Your task to perform on an android device: turn off location history Image 0: 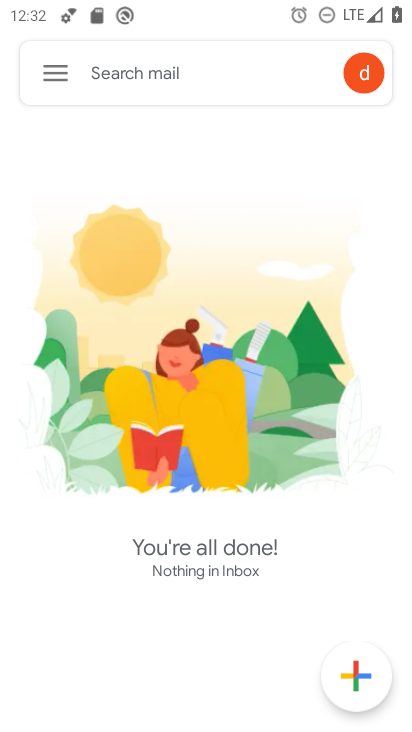
Step 0: press home button
Your task to perform on an android device: turn off location history Image 1: 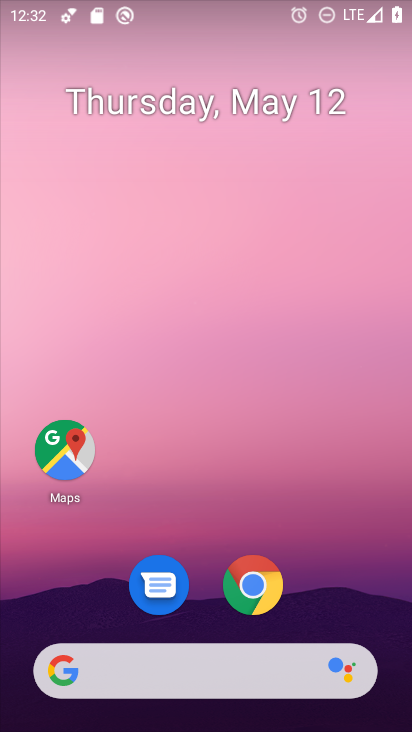
Step 1: drag from (236, 465) to (197, 1)
Your task to perform on an android device: turn off location history Image 2: 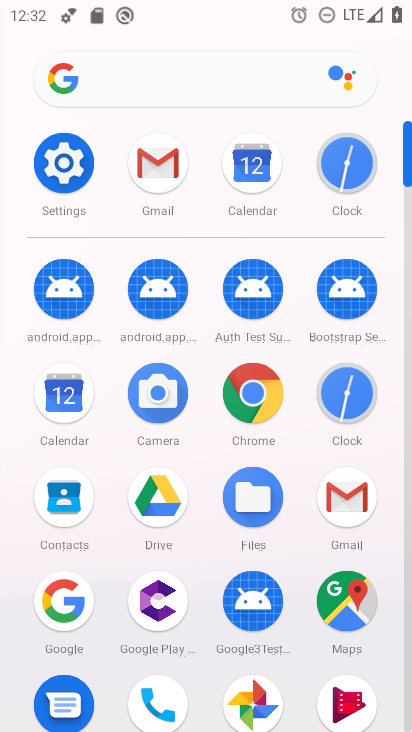
Step 2: click (65, 161)
Your task to perform on an android device: turn off location history Image 3: 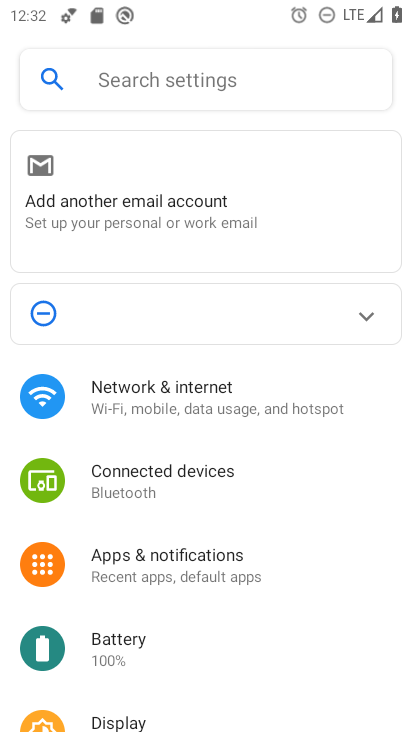
Step 3: drag from (226, 640) to (282, 289)
Your task to perform on an android device: turn off location history Image 4: 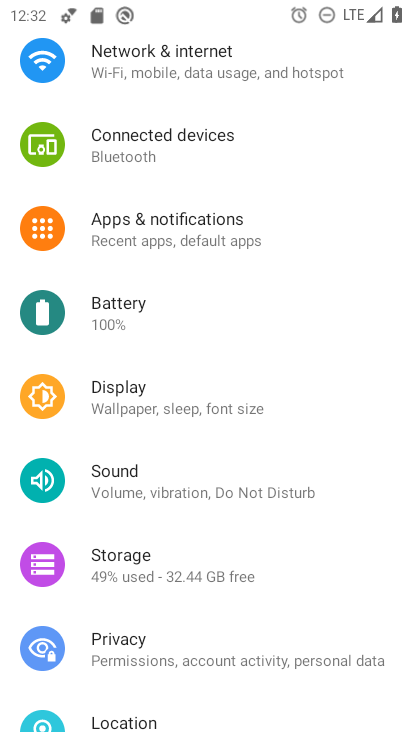
Step 4: drag from (239, 581) to (263, 281)
Your task to perform on an android device: turn off location history Image 5: 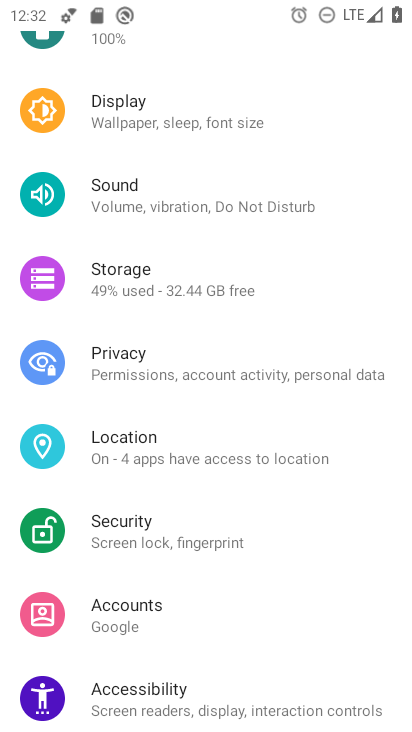
Step 5: click (234, 451)
Your task to perform on an android device: turn off location history Image 6: 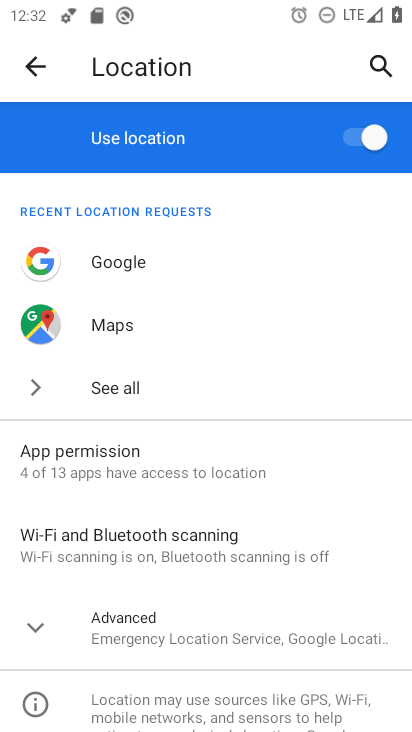
Step 6: click (32, 616)
Your task to perform on an android device: turn off location history Image 7: 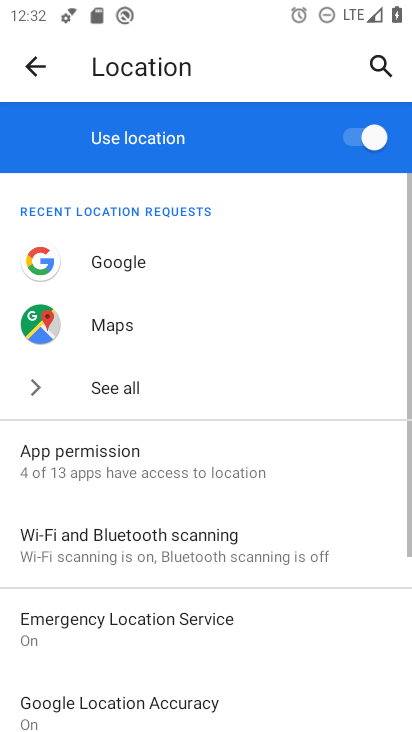
Step 7: drag from (225, 605) to (275, 227)
Your task to perform on an android device: turn off location history Image 8: 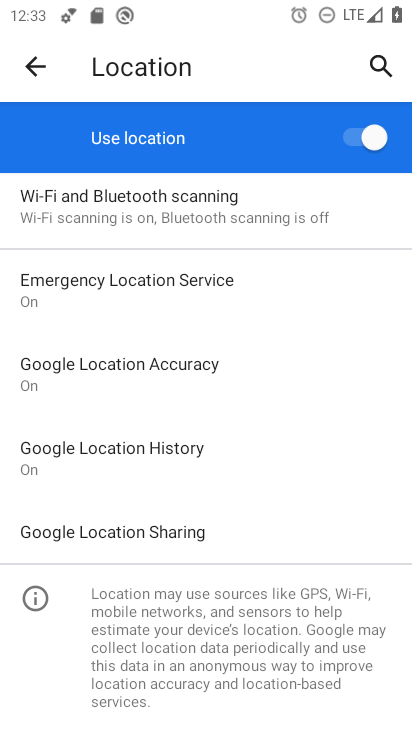
Step 8: click (175, 452)
Your task to perform on an android device: turn off location history Image 9: 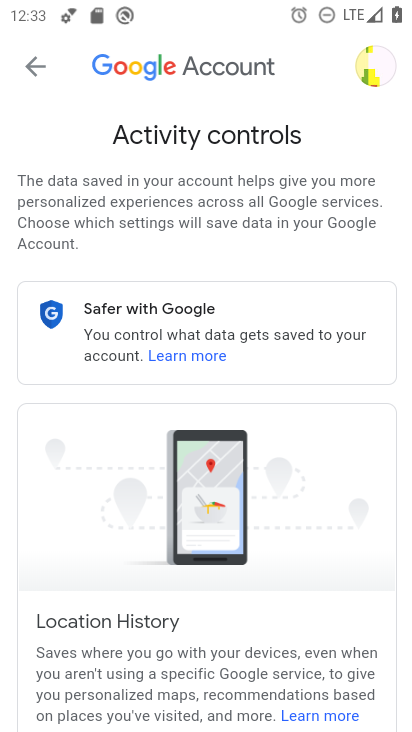
Step 9: drag from (300, 528) to (338, 187)
Your task to perform on an android device: turn off location history Image 10: 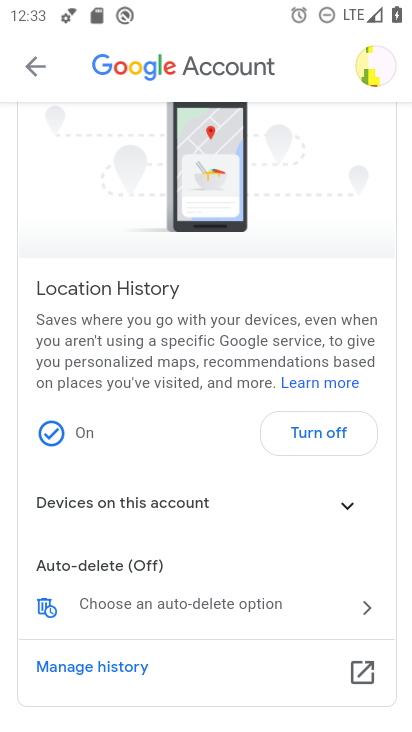
Step 10: click (312, 417)
Your task to perform on an android device: turn off location history Image 11: 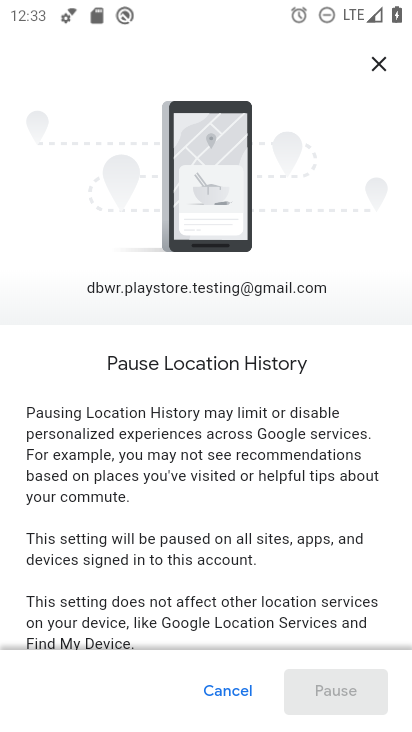
Step 11: drag from (289, 542) to (360, 81)
Your task to perform on an android device: turn off location history Image 12: 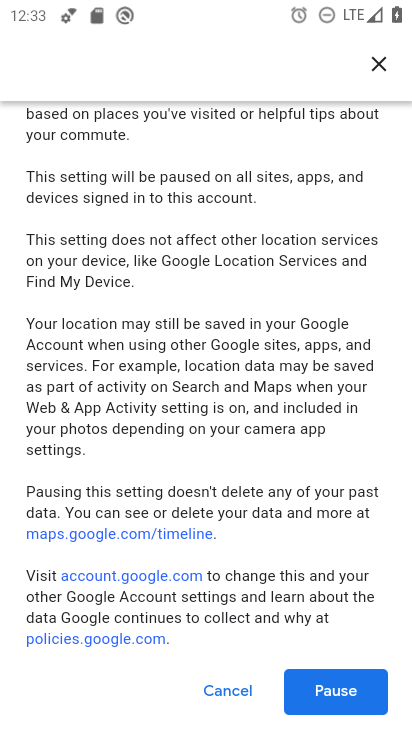
Step 12: click (349, 687)
Your task to perform on an android device: turn off location history Image 13: 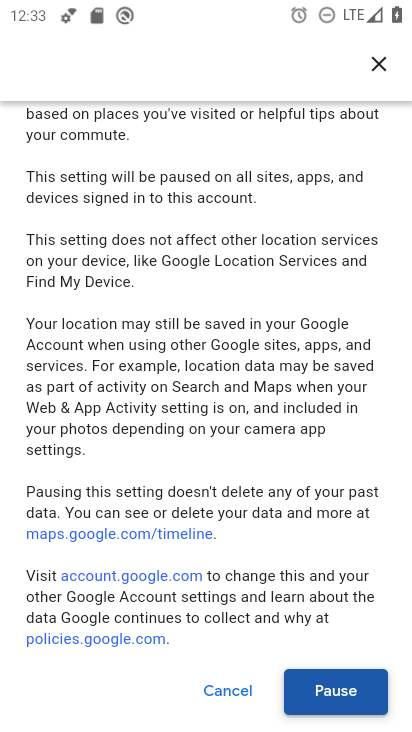
Step 13: click (350, 679)
Your task to perform on an android device: turn off location history Image 14: 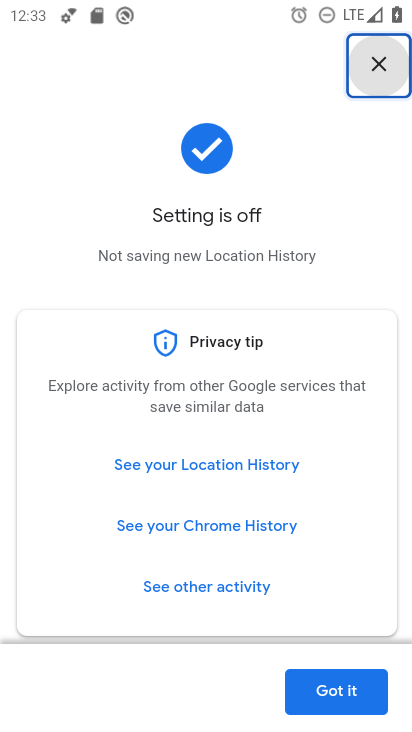
Step 14: click (352, 687)
Your task to perform on an android device: turn off location history Image 15: 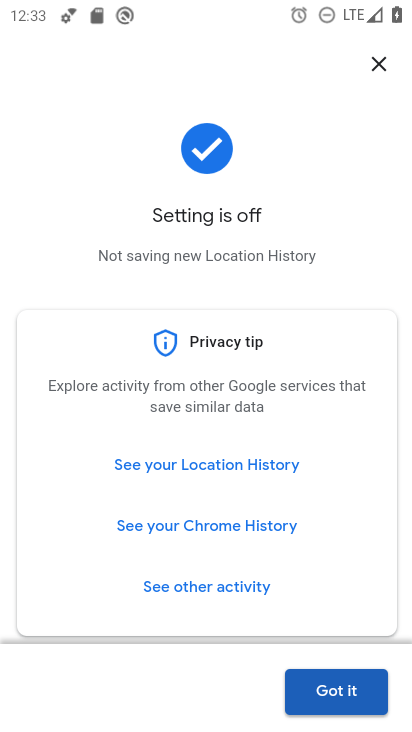
Step 15: click (352, 694)
Your task to perform on an android device: turn off location history Image 16: 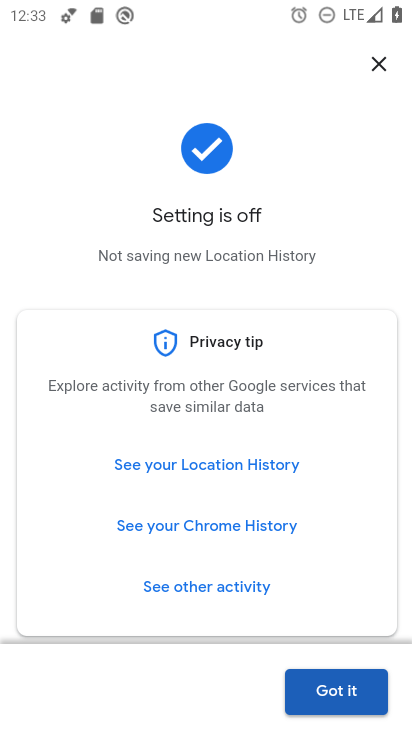
Step 16: click (328, 684)
Your task to perform on an android device: turn off location history Image 17: 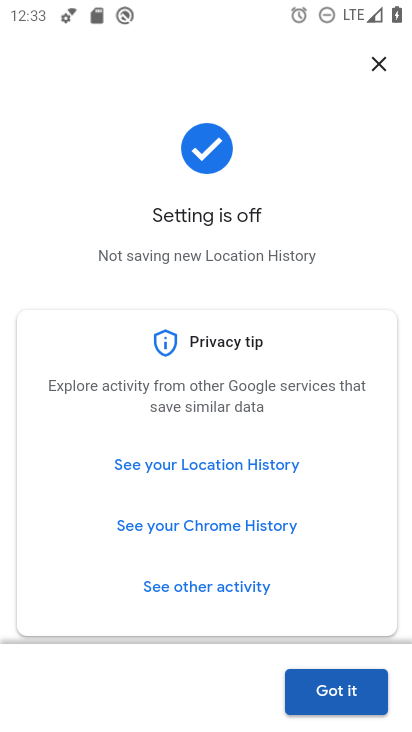
Step 17: click (361, 702)
Your task to perform on an android device: turn off location history Image 18: 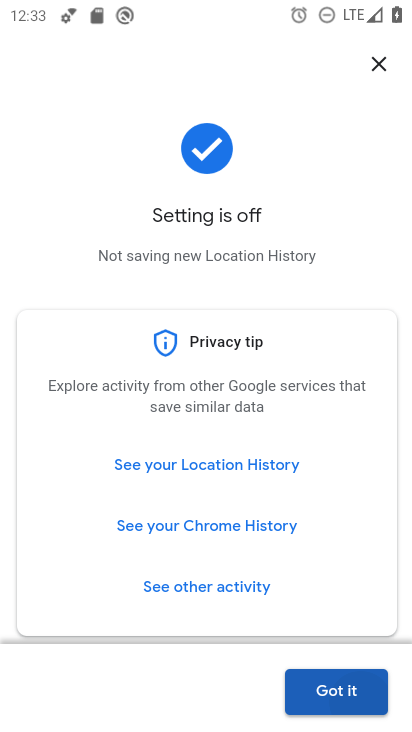
Step 18: click (358, 699)
Your task to perform on an android device: turn off location history Image 19: 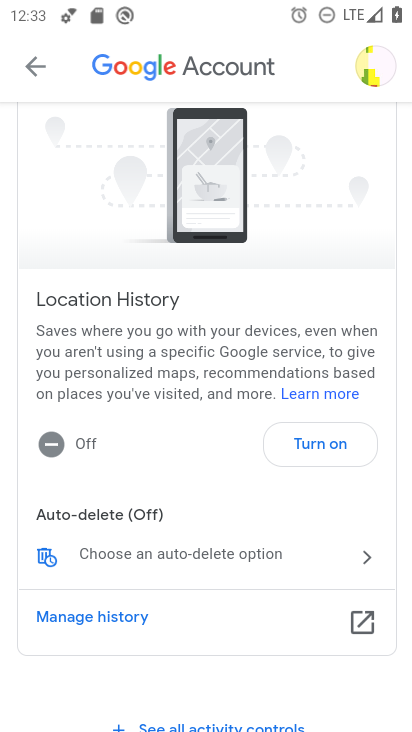
Step 19: task complete